Your task to perform on an android device: Open calendar and show me the first week of next month Image 0: 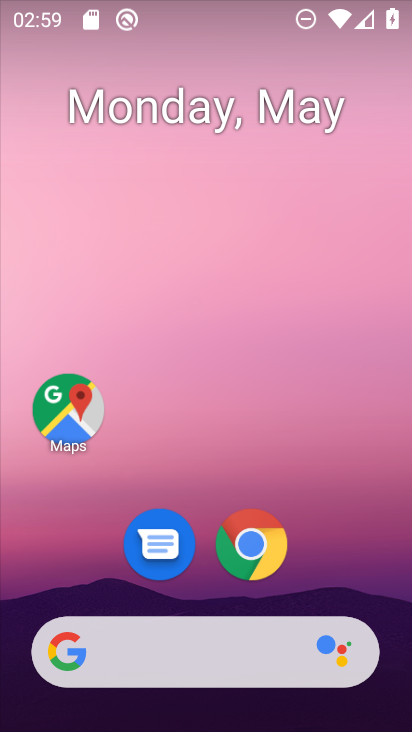
Step 0: drag from (373, 561) to (357, 191)
Your task to perform on an android device: Open calendar and show me the first week of next month Image 1: 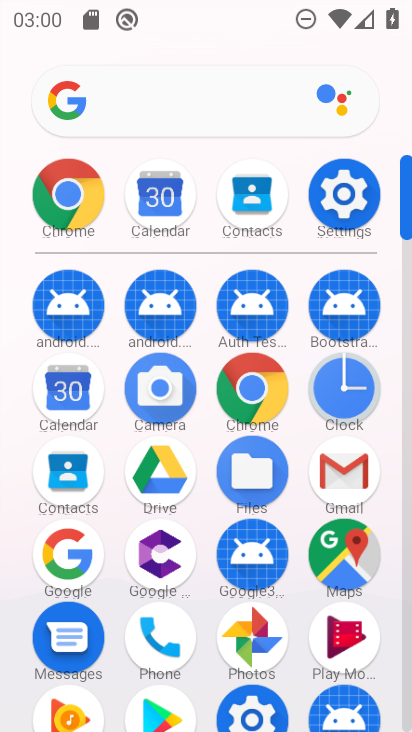
Step 1: click (88, 394)
Your task to perform on an android device: Open calendar and show me the first week of next month Image 2: 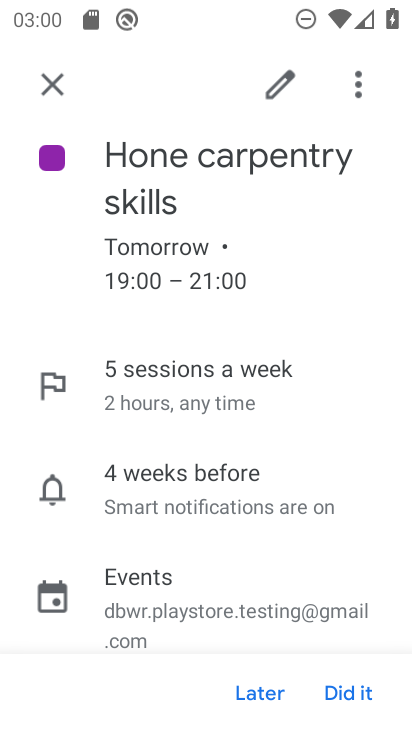
Step 2: click (56, 96)
Your task to perform on an android device: Open calendar and show me the first week of next month Image 3: 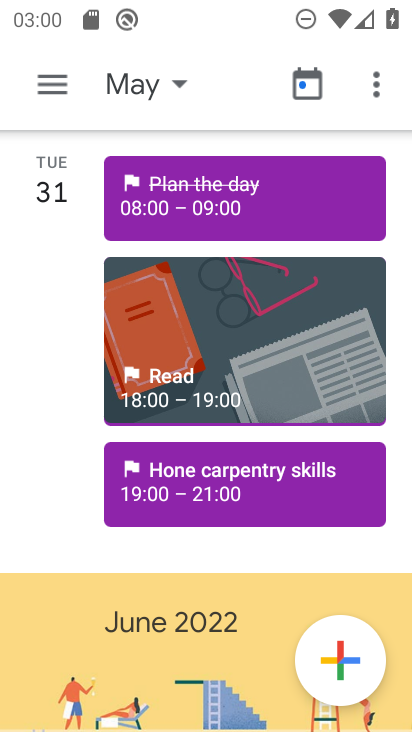
Step 3: click (182, 90)
Your task to perform on an android device: Open calendar and show me the first week of next month Image 4: 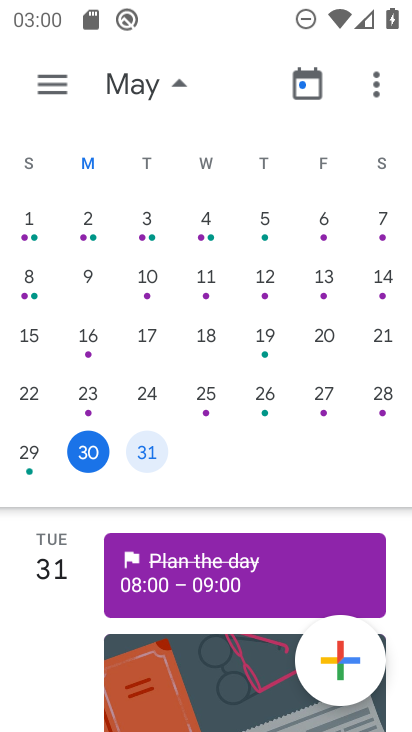
Step 4: drag from (389, 191) to (60, 200)
Your task to perform on an android device: Open calendar and show me the first week of next month Image 5: 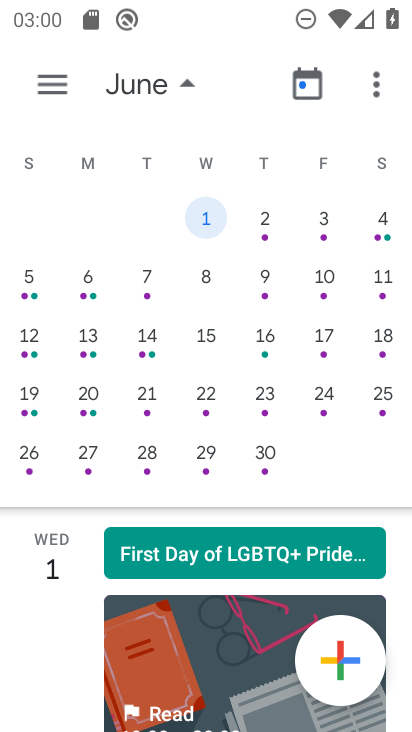
Step 5: click (197, 217)
Your task to perform on an android device: Open calendar and show me the first week of next month Image 6: 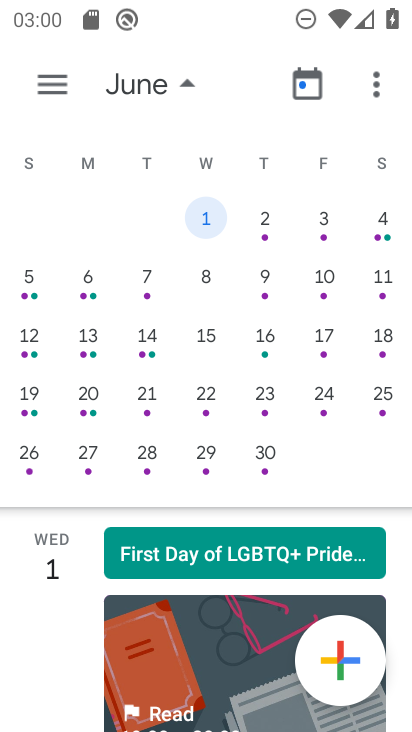
Step 6: click (255, 214)
Your task to perform on an android device: Open calendar and show me the first week of next month Image 7: 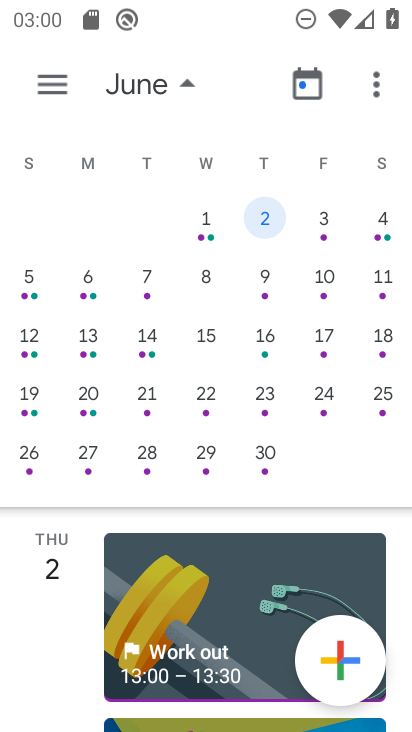
Step 7: task complete